Your task to perform on an android device: When is my next appointment? Image 0: 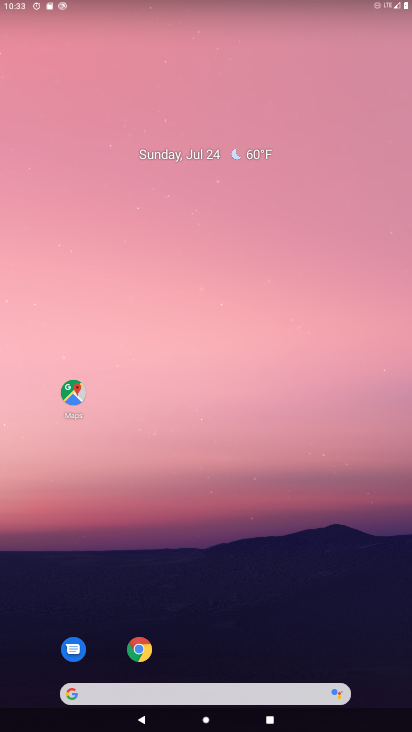
Step 0: drag from (304, 600) to (250, 66)
Your task to perform on an android device: When is my next appointment? Image 1: 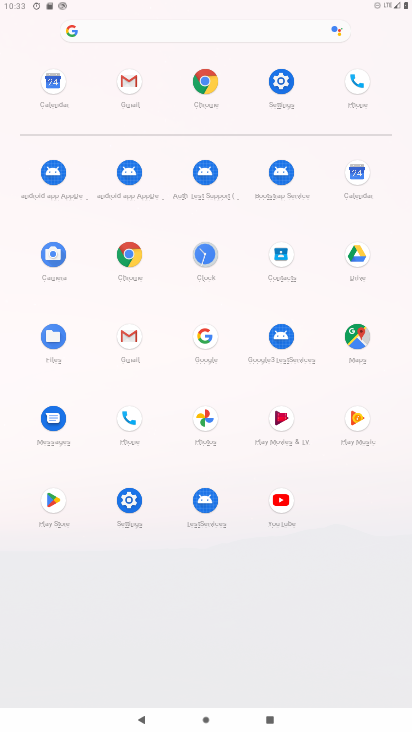
Step 1: click (356, 173)
Your task to perform on an android device: When is my next appointment? Image 2: 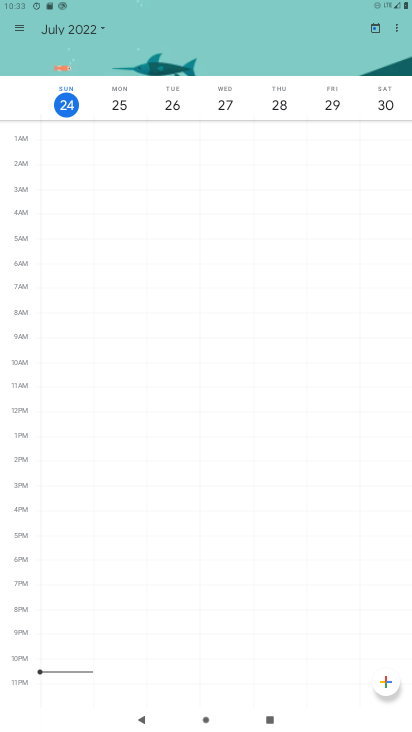
Step 2: task complete